Your task to perform on an android device: Check the weather Image 0: 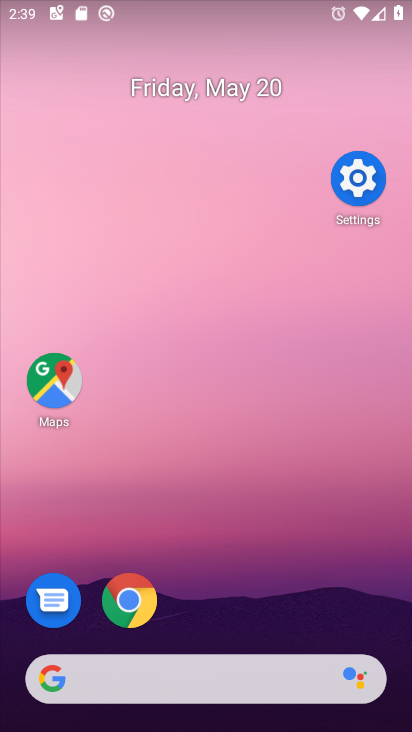
Step 0: click (232, 672)
Your task to perform on an android device: Check the weather Image 1: 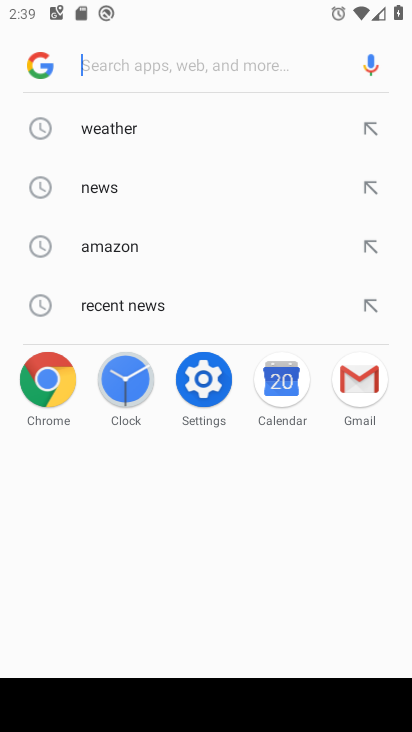
Step 1: click (117, 126)
Your task to perform on an android device: Check the weather Image 2: 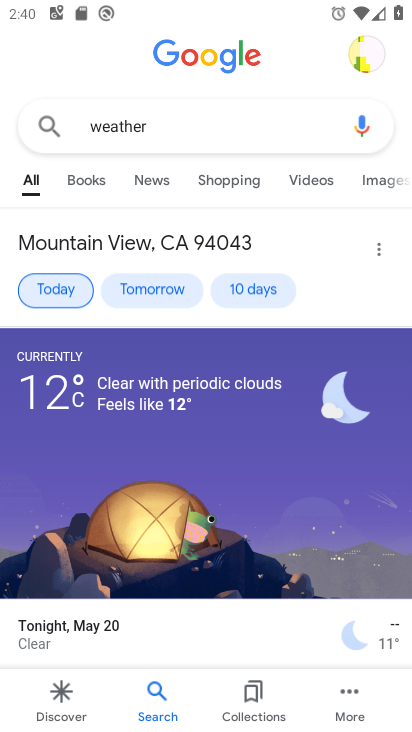
Step 2: task complete